Your task to perform on an android device: open device folders in google photos Image 0: 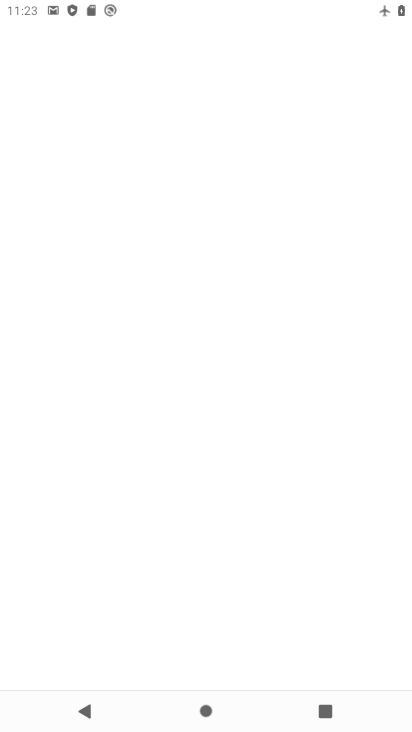
Step 0: press home button
Your task to perform on an android device: open device folders in google photos Image 1: 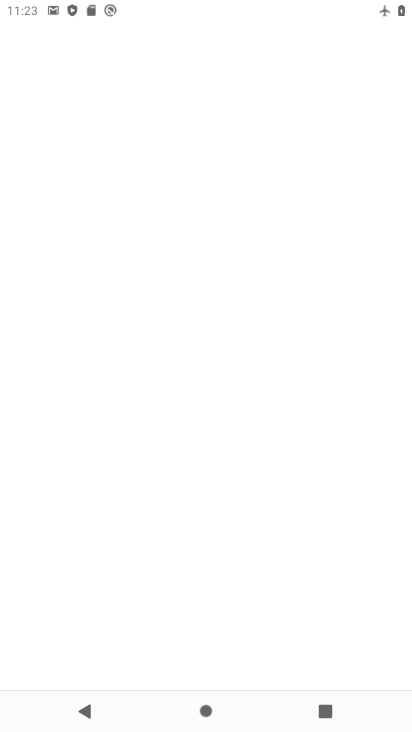
Step 1: click (221, 37)
Your task to perform on an android device: open device folders in google photos Image 2: 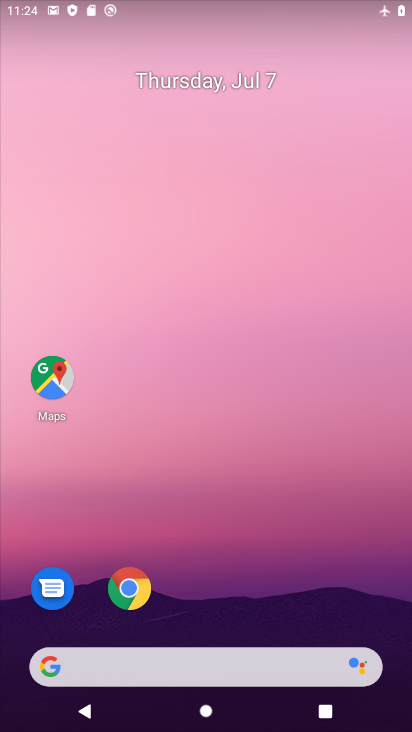
Step 2: drag from (276, 578) to (217, 141)
Your task to perform on an android device: open device folders in google photos Image 3: 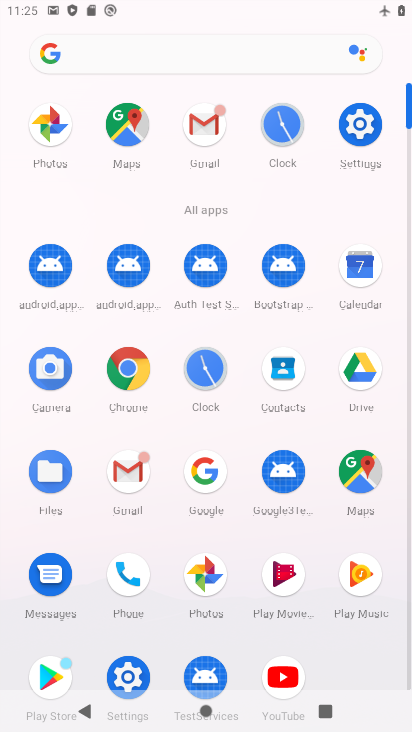
Step 3: click (198, 582)
Your task to perform on an android device: open device folders in google photos Image 4: 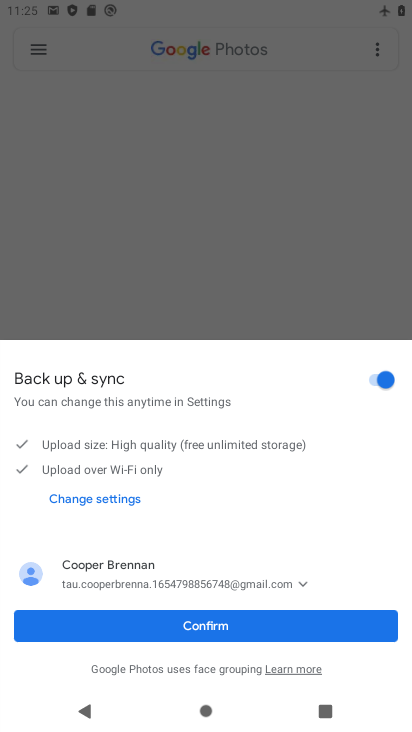
Step 4: click (229, 628)
Your task to perform on an android device: open device folders in google photos Image 5: 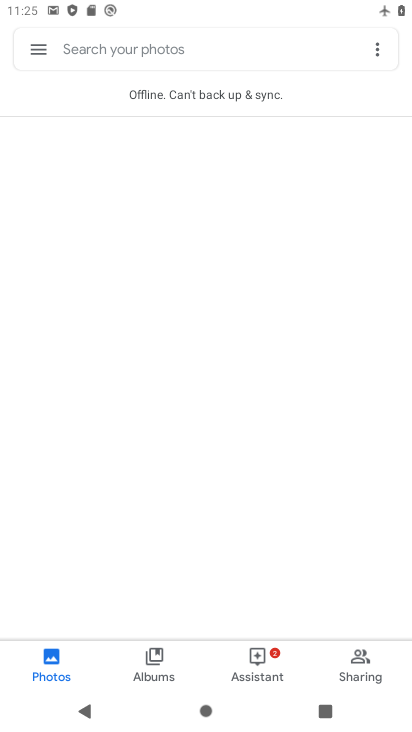
Step 5: click (27, 51)
Your task to perform on an android device: open device folders in google photos Image 6: 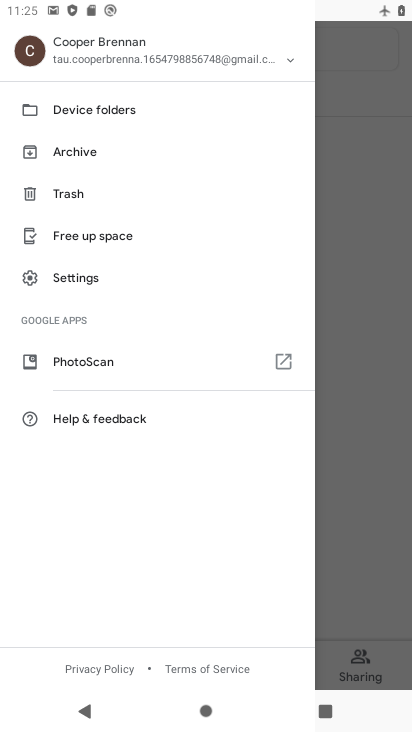
Step 6: click (69, 107)
Your task to perform on an android device: open device folders in google photos Image 7: 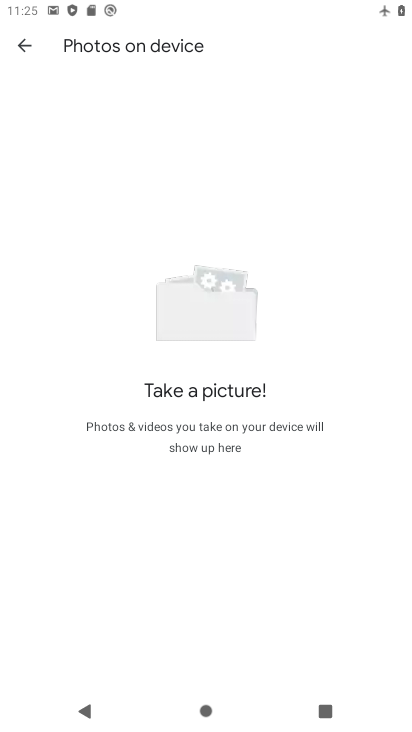
Step 7: task complete